Your task to perform on an android device: turn off priority inbox in the gmail app Image 0: 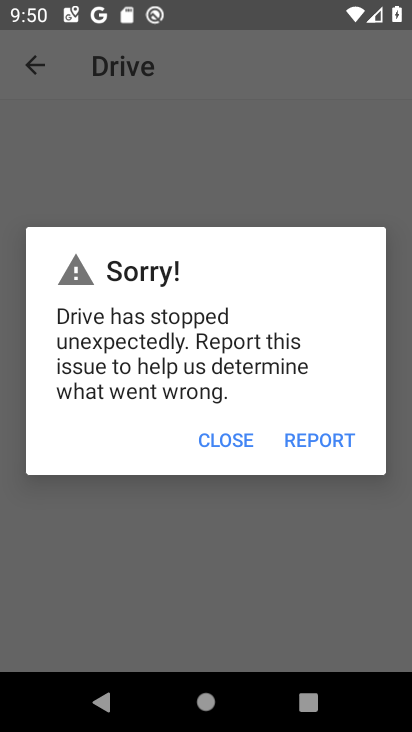
Step 0: press home button
Your task to perform on an android device: turn off priority inbox in the gmail app Image 1: 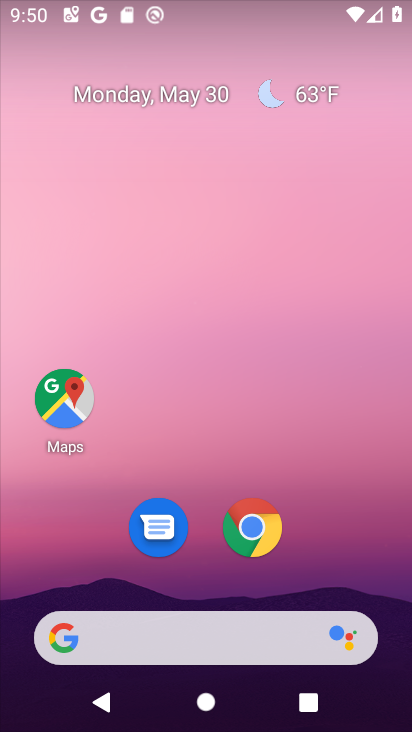
Step 1: drag from (323, 553) to (302, 247)
Your task to perform on an android device: turn off priority inbox in the gmail app Image 2: 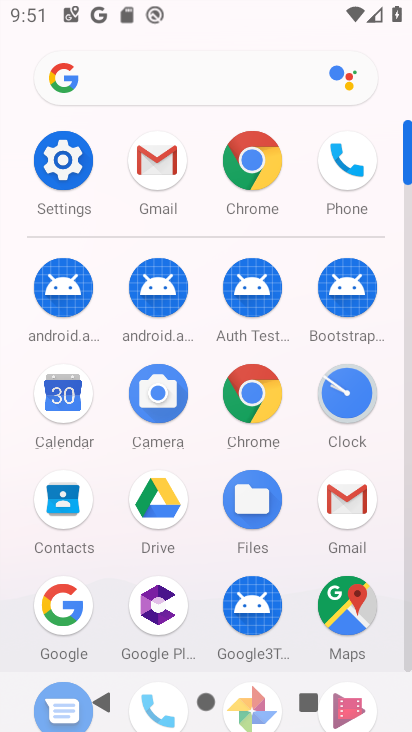
Step 2: click (346, 498)
Your task to perform on an android device: turn off priority inbox in the gmail app Image 3: 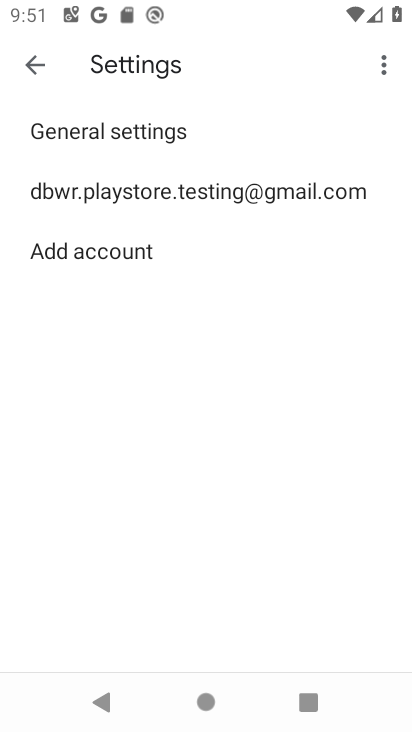
Step 3: click (187, 201)
Your task to perform on an android device: turn off priority inbox in the gmail app Image 4: 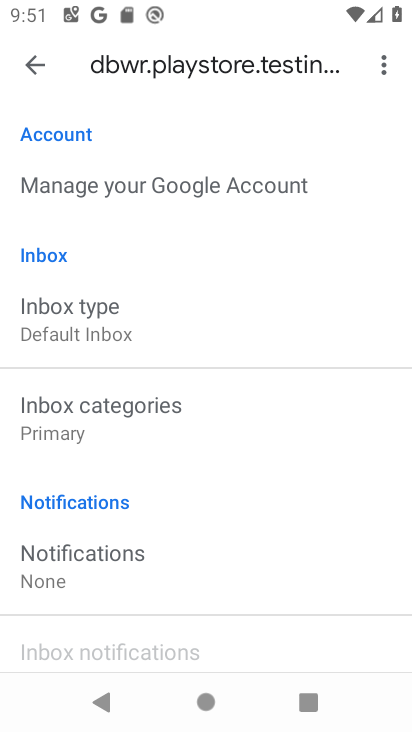
Step 4: click (84, 321)
Your task to perform on an android device: turn off priority inbox in the gmail app Image 5: 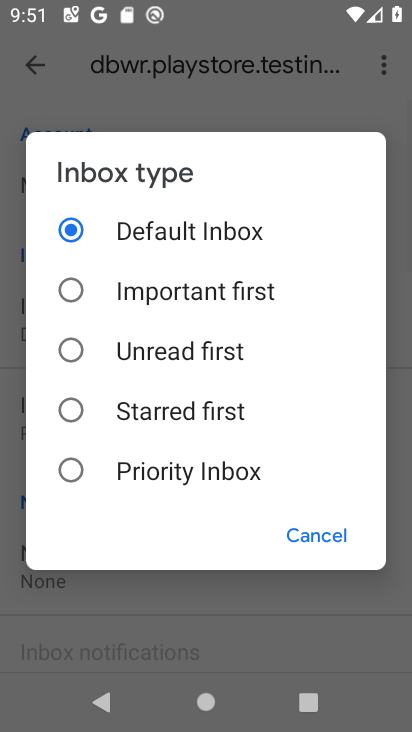
Step 5: click (160, 467)
Your task to perform on an android device: turn off priority inbox in the gmail app Image 6: 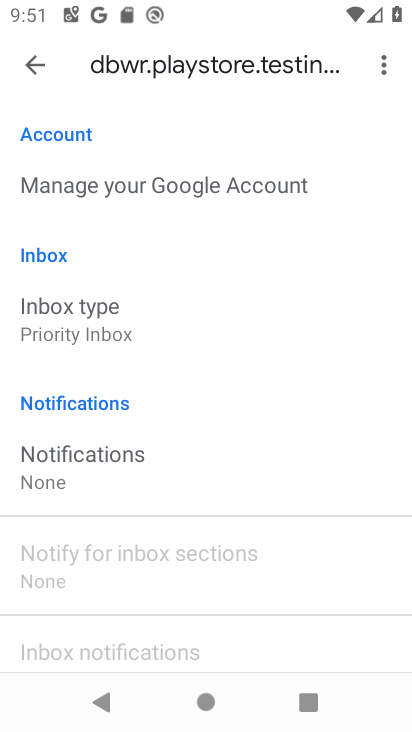
Step 6: click (159, 467)
Your task to perform on an android device: turn off priority inbox in the gmail app Image 7: 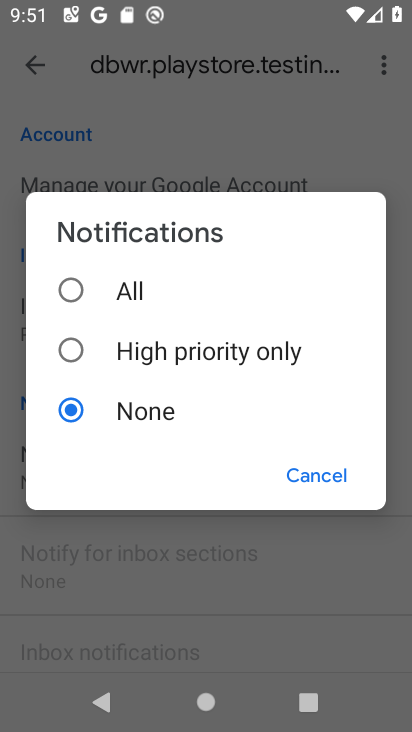
Step 7: click (345, 463)
Your task to perform on an android device: turn off priority inbox in the gmail app Image 8: 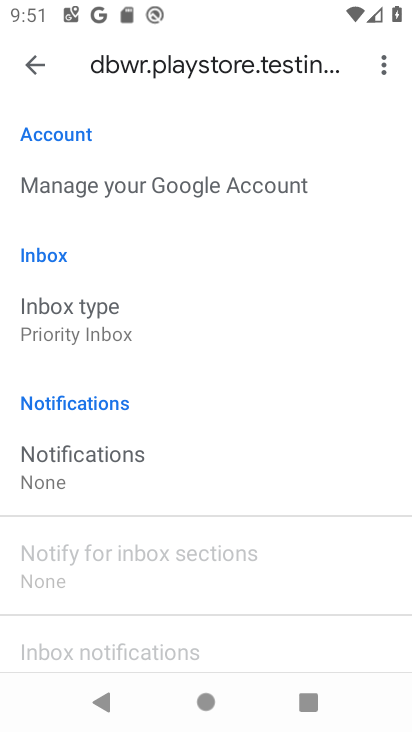
Step 8: click (181, 315)
Your task to perform on an android device: turn off priority inbox in the gmail app Image 9: 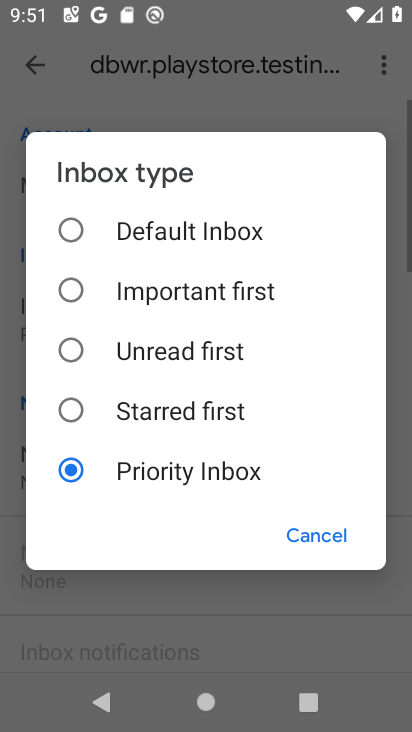
Step 9: click (148, 221)
Your task to perform on an android device: turn off priority inbox in the gmail app Image 10: 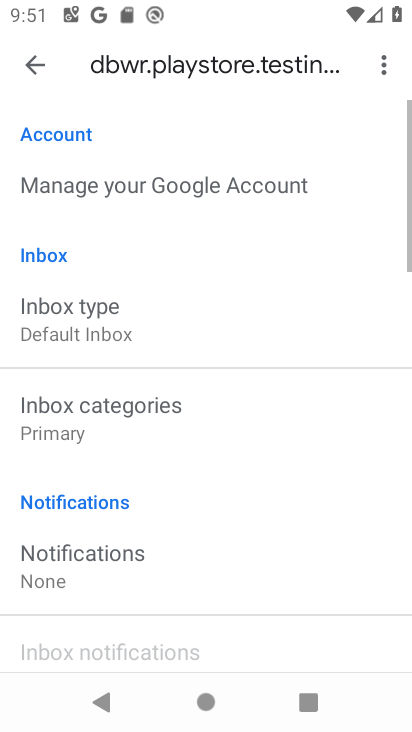
Step 10: task complete